Your task to perform on an android device: Go to network settings Image 0: 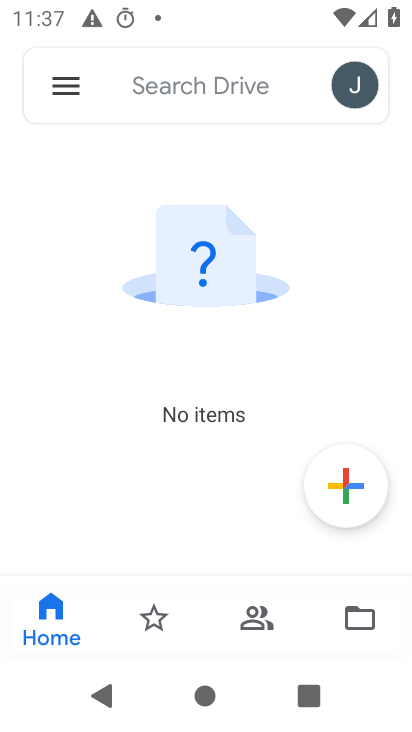
Step 0: press back button
Your task to perform on an android device: Go to network settings Image 1: 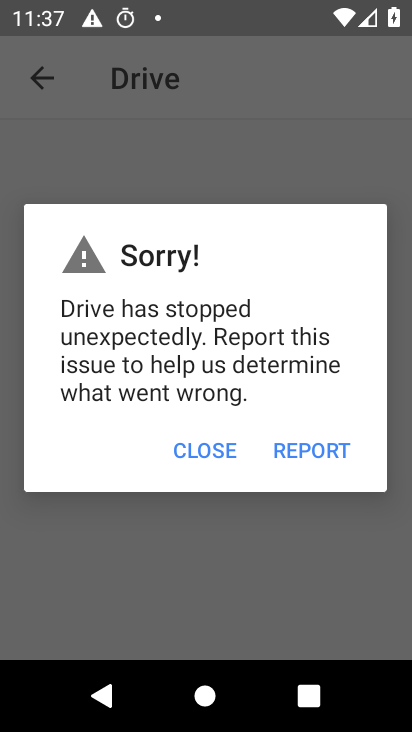
Step 1: press back button
Your task to perform on an android device: Go to network settings Image 2: 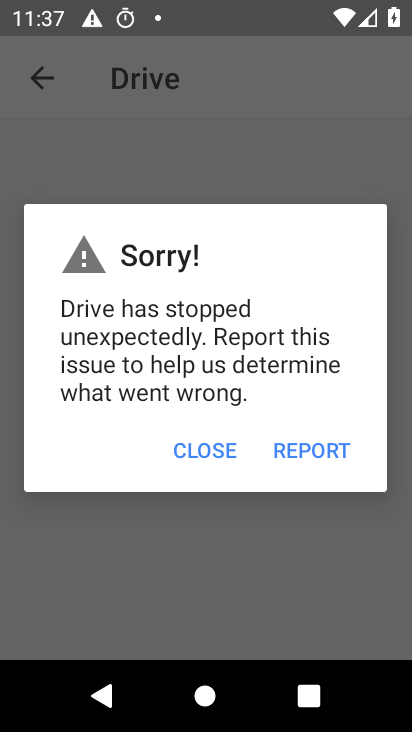
Step 2: press home button
Your task to perform on an android device: Go to network settings Image 3: 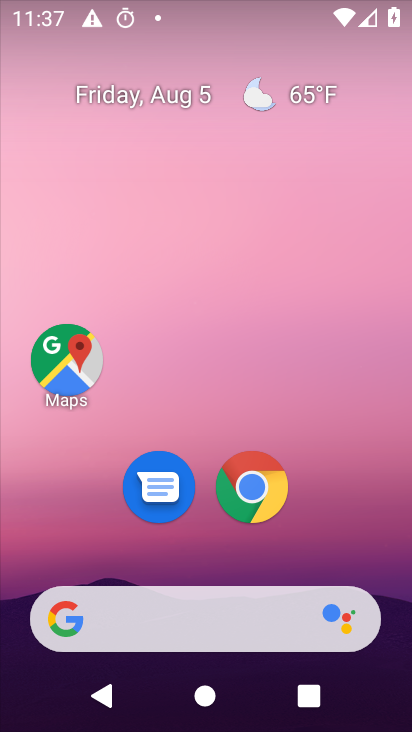
Step 3: drag from (133, 569) to (299, 6)
Your task to perform on an android device: Go to network settings Image 4: 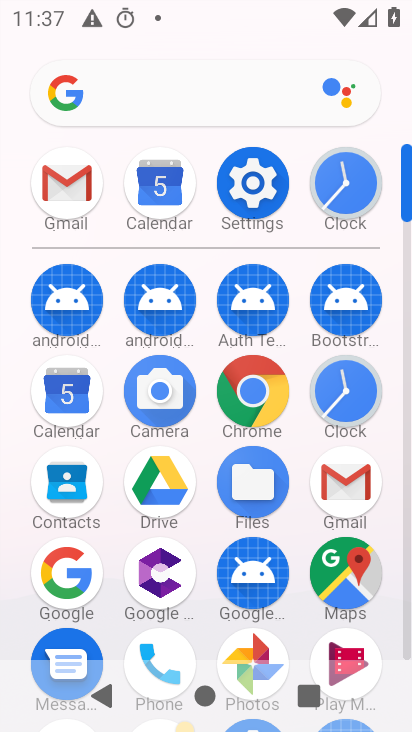
Step 4: click (266, 185)
Your task to perform on an android device: Go to network settings Image 5: 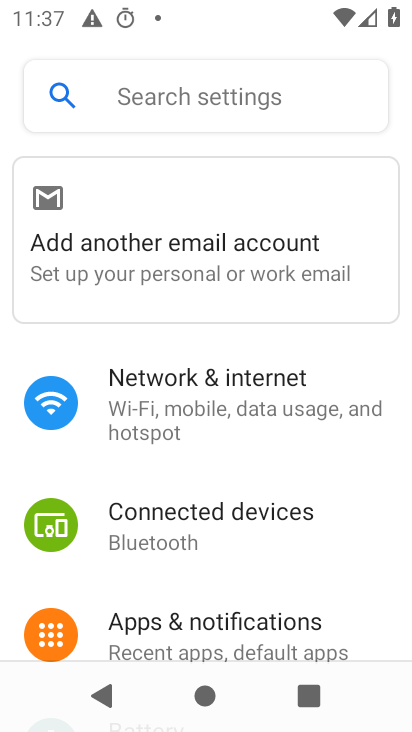
Step 5: click (187, 388)
Your task to perform on an android device: Go to network settings Image 6: 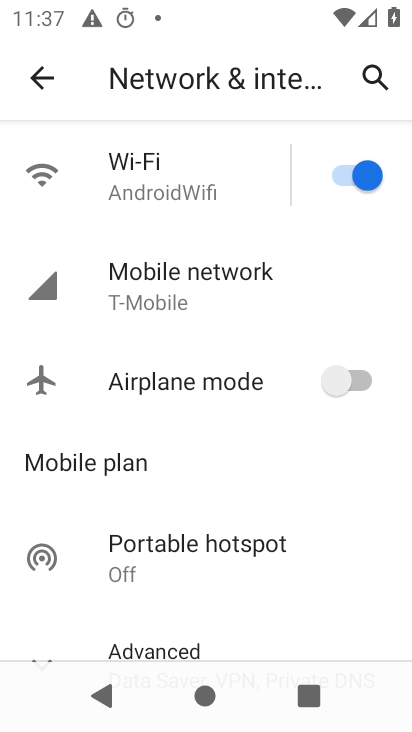
Step 6: task complete